Your task to perform on an android device: open app "Messages" (install if not already installed), go to login, and select forgot password Image 0: 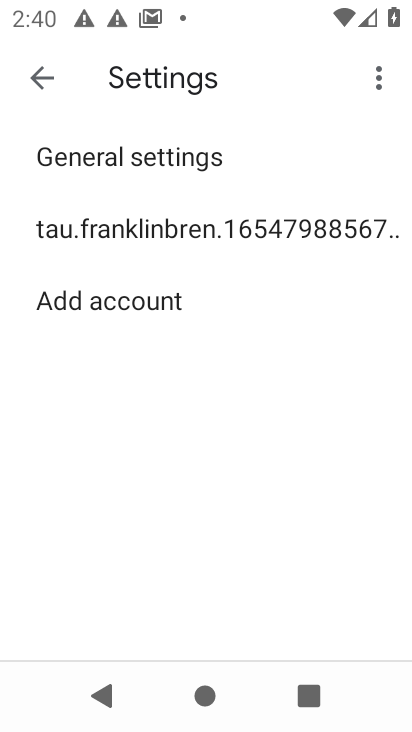
Step 0: press home button
Your task to perform on an android device: open app "Messages" (install if not already installed), go to login, and select forgot password Image 1: 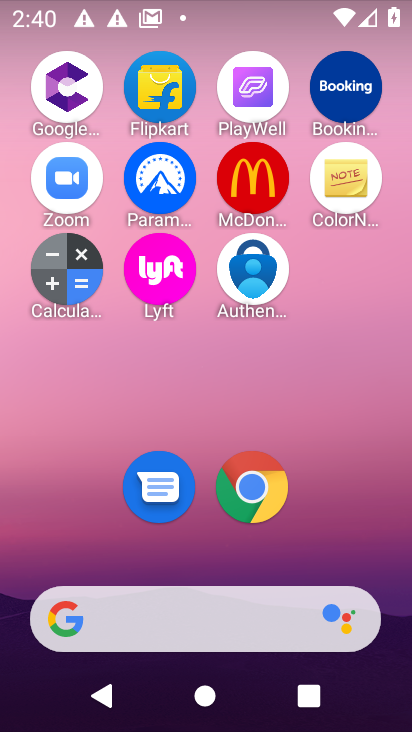
Step 1: drag from (147, 644) to (201, 61)
Your task to perform on an android device: open app "Messages" (install if not already installed), go to login, and select forgot password Image 2: 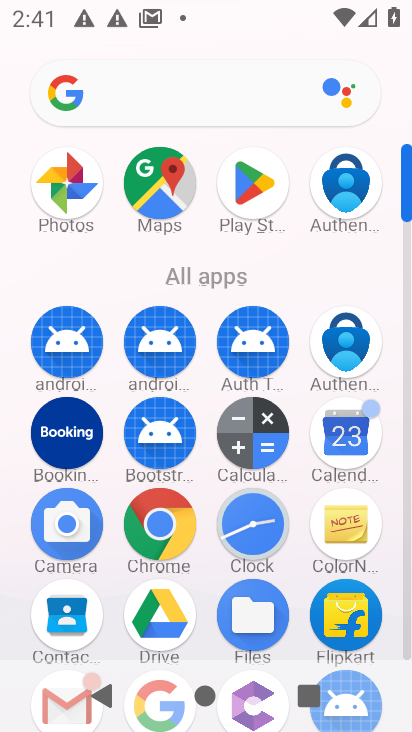
Step 2: click (244, 192)
Your task to perform on an android device: open app "Messages" (install if not already installed), go to login, and select forgot password Image 3: 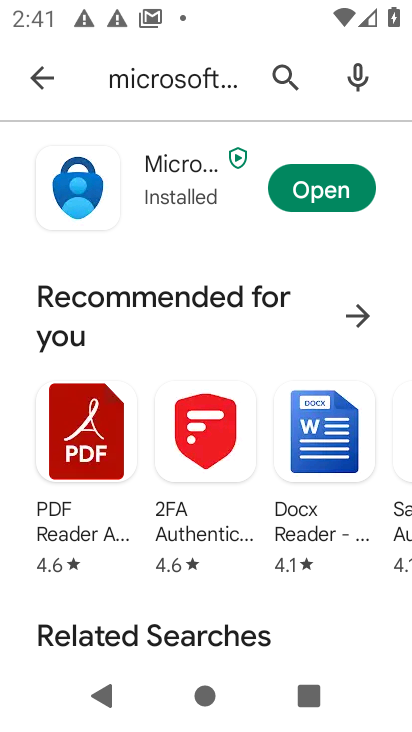
Step 3: press back button
Your task to perform on an android device: open app "Messages" (install if not already installed), go to login, and select forgot password Image 4: 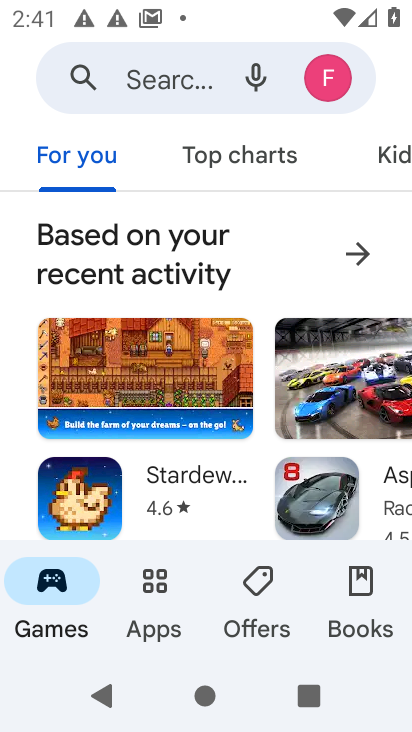
Step 4: click (160, 71)
Your task to perform on an android device: open app "Messages" (install if not already installed), go to login, and select forgot password Image 5: 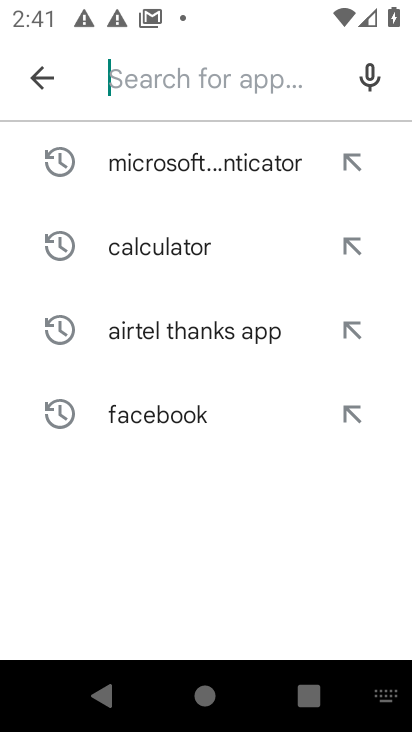
Step 5: type "Messages"
Your task to perform on an android device: open app "Messages" (install if not already installed), go to login, and select forgot password Image 6: 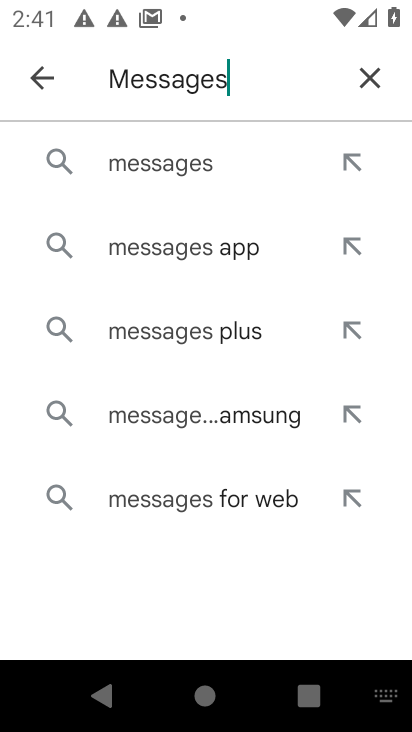
Step 6: click (168, 163)
Your task to perform on an android device: open app "Messages" (install if not already installed), go to login, and select forgot password Image 7: 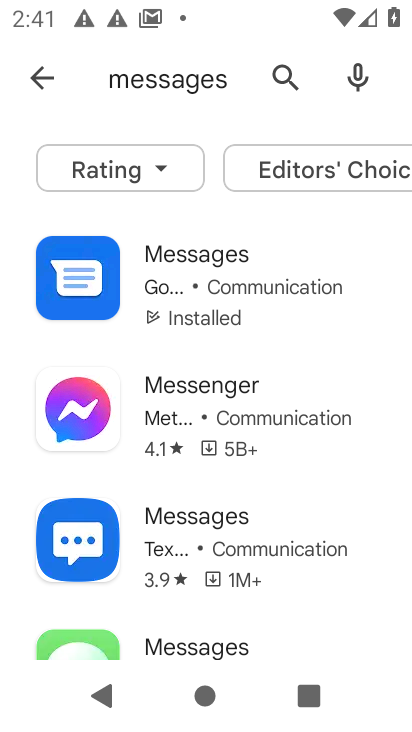
Step 7: click (210, 256)
Your task to perform on an android device: open app "Messages" (install if not already installed), go to login, and select forgot password Image 8: 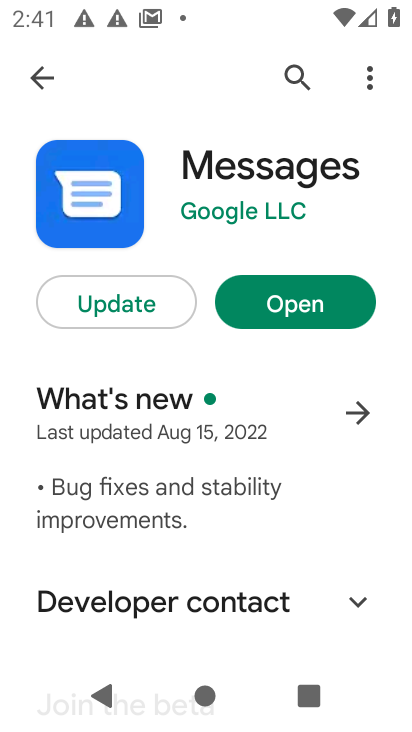
Step 8: click (272, 304)
Your task to perform on an android device: open app "Messages" (install if not already installed), go to login, and select forgot password Image 9: 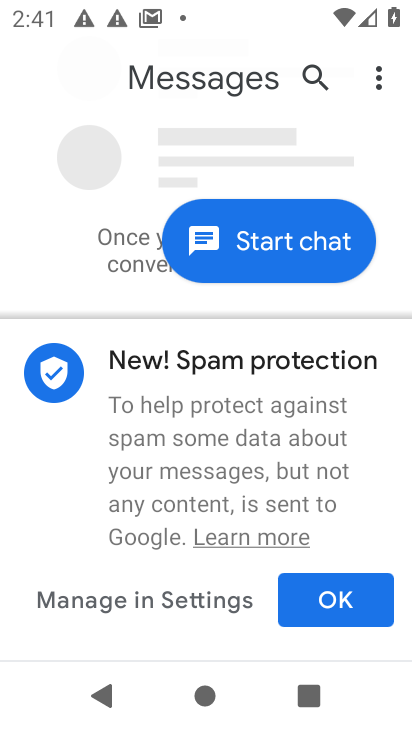
Step 9: drag from (86, 288) to (175, 18)
Your task to perform on an android device: open app "Messages" (install if not already installed), go to login, and select forgot password Image 10: 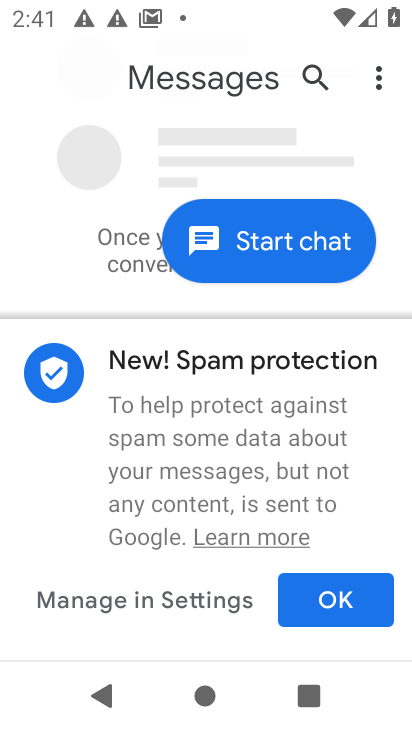
Step 10: click (334, 603)
Your task to perform on an android device: open app "Messages" (install if not already installed), go to login, and select forgot password Image 11: 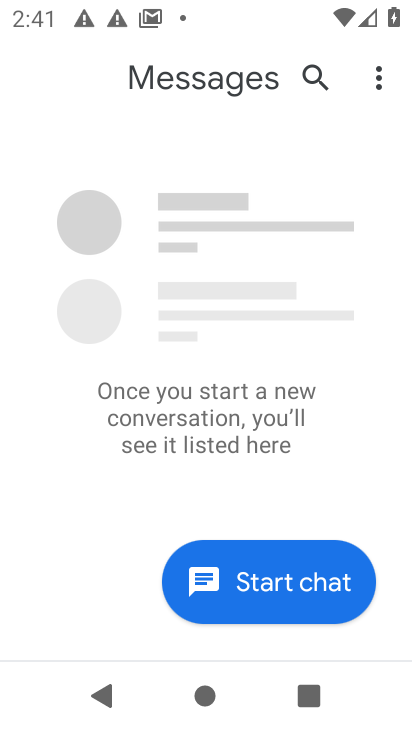
Step 11: task complete